Your task to perform on an android device: stop showing notifications on the lock screen Image 0: 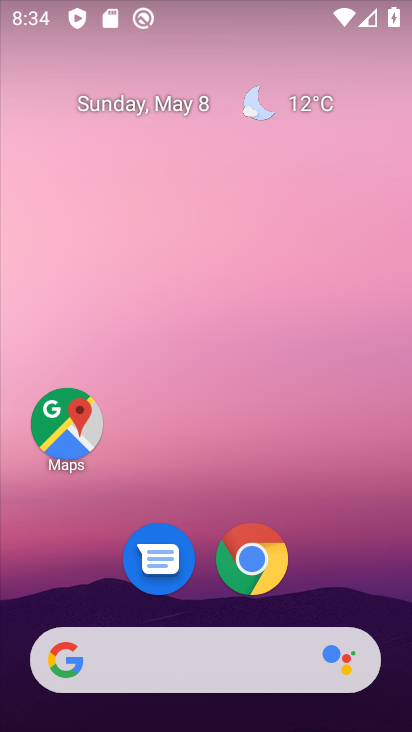
Step 0: drag from (216, 603) to (156, 6)
Your task to perform on an android device: stop showing notifications on the lock screen Image 1: 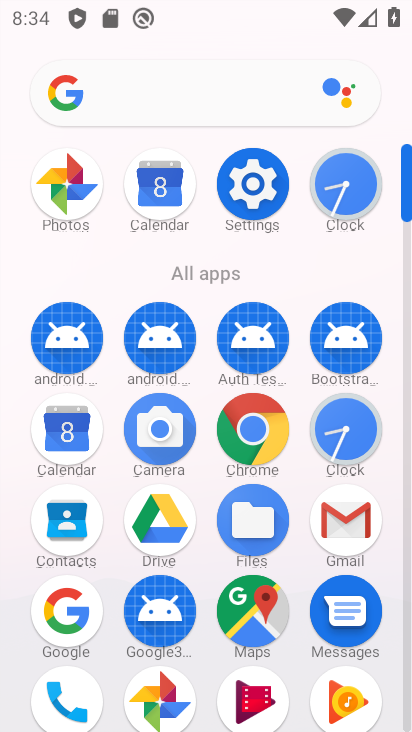
Step 1: click (263, 189)
Your task to perform on an android device: stop showing notifications on the lock screen Image 2: 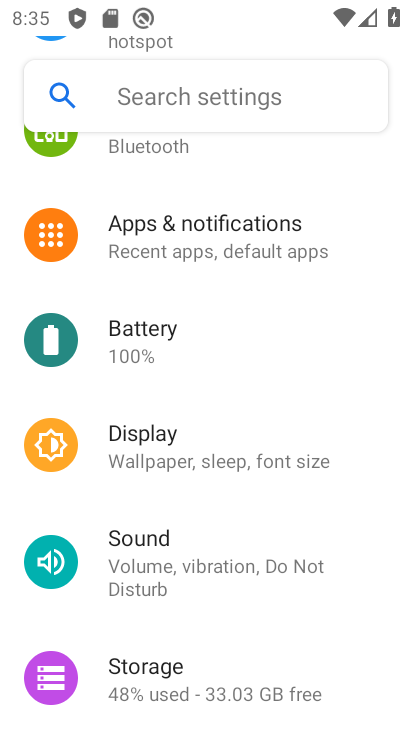
Step 2: click (234, 239)
Your task to perform on an android device: stop showing notifications on the lock screen Image 3: 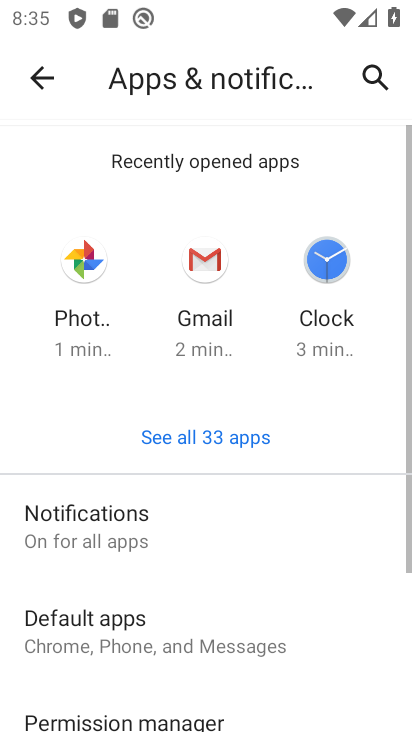
Step 3: click (110, 547)
Your task to perform on an android device: stop showing notifications on the lock screen Image 4: 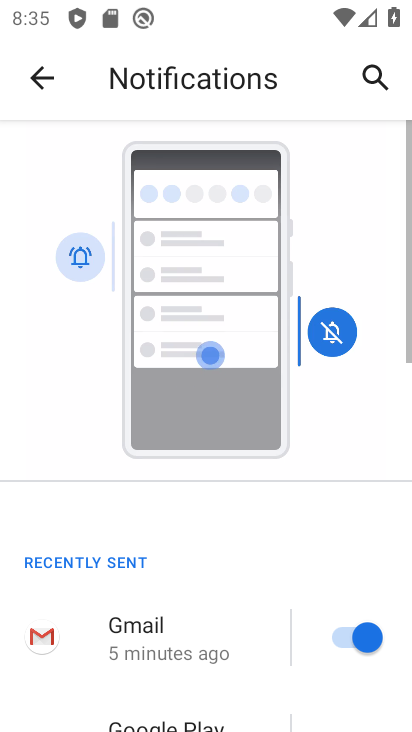
Step 4: drag from (163, 583) to (220, 52)
Your task to perform on an android device: stop showing notifications on the lock screen Image 5: 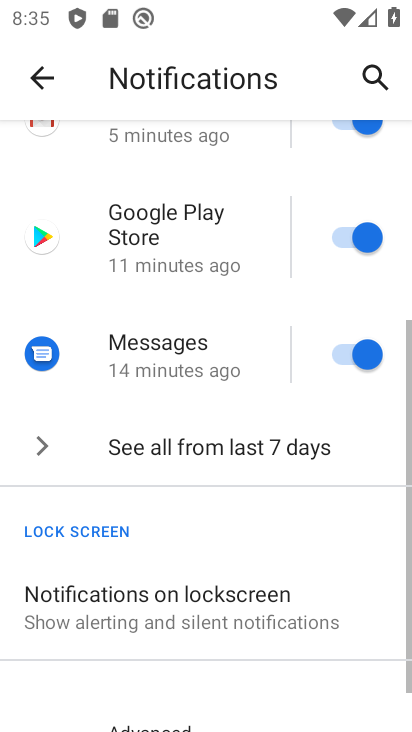
Step 5: click (204, 549)
Your task to perform on an android device: stop showing notifications on the lock screen Image 6: 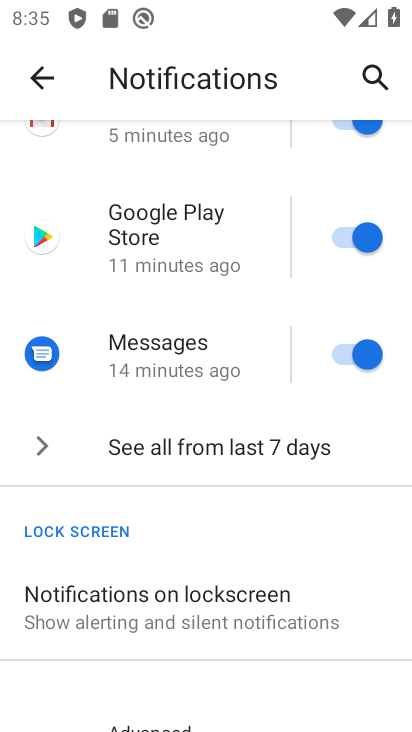
Step 6: click (201, 591)
Your task to perform on an android device: stop showing notifications on the lock screen Image 7: 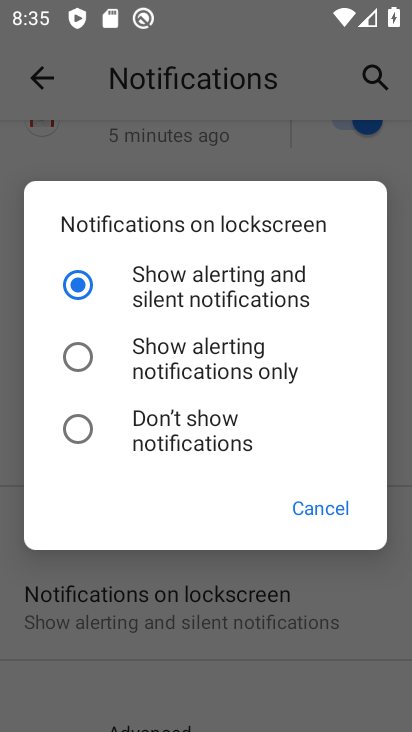
Step 7: click (144, 418)
Your task to perform on an android device: stop showing notifications on the lock screen Image 8: 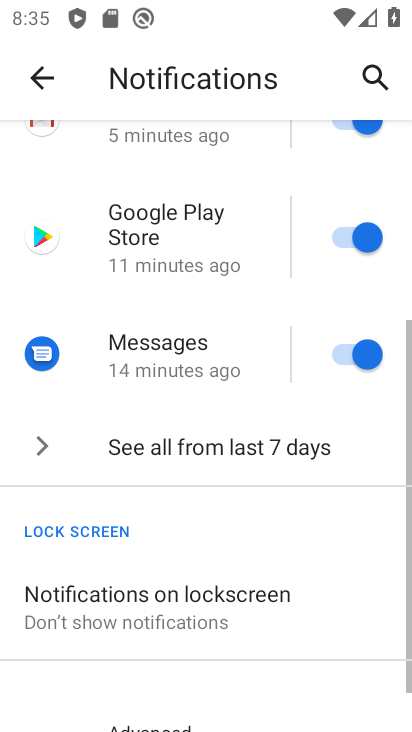
Step 8: task complete